Your task to perform on an android device: Go to Google maps Image 0: 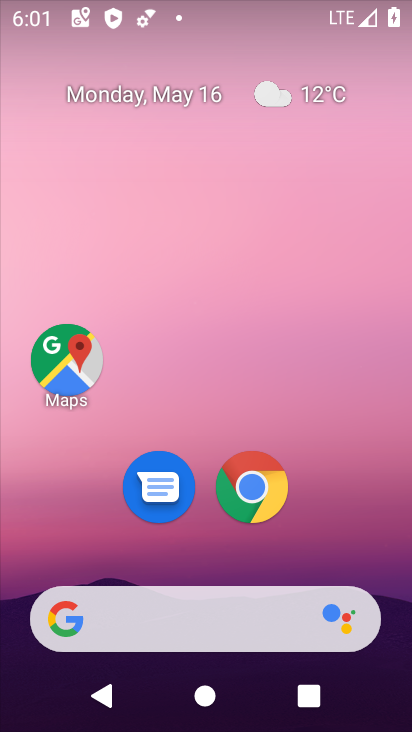
Step 0: click (79, 361)
Your task to perform on an android device: Go to Google maps Image 1: 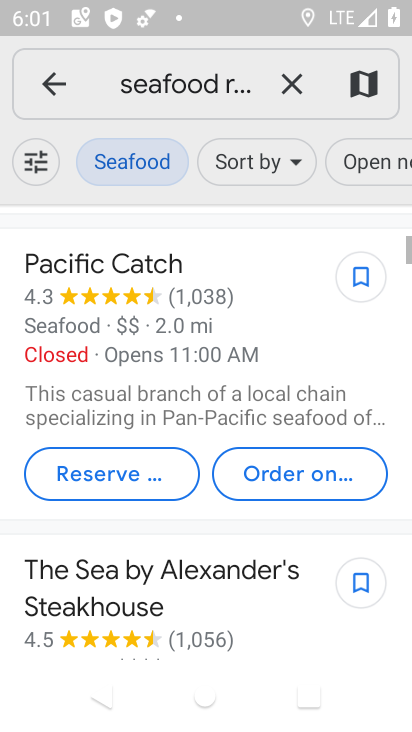
Step 1: task complete